Your task to perform on an android device: turn on showing notifications on the lock screen Image 0: 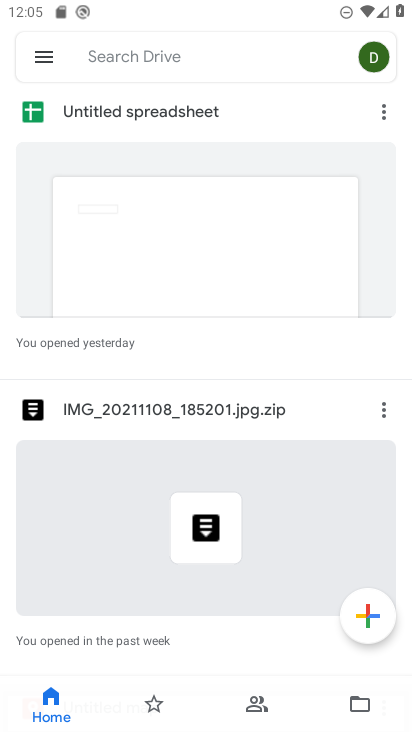
Step 0: press home button
Your task to perform on an android device: turn on showing notifications on the lock screen Image 1: 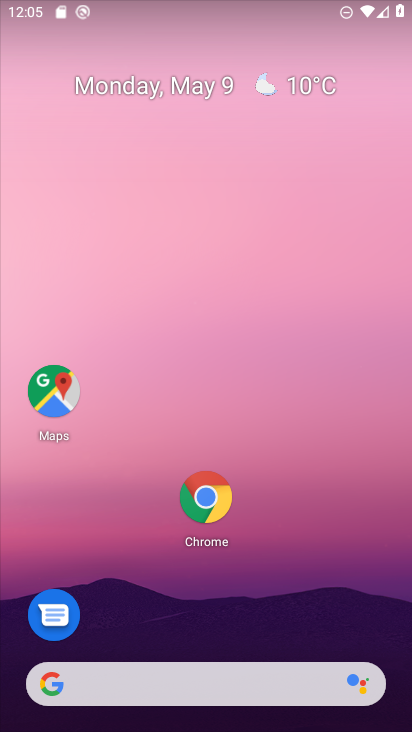
Step 1: drag from (374, 530) to (350, 0)
Your task to perform on an android device: turn on showing notifications on the lock screen Image 2: 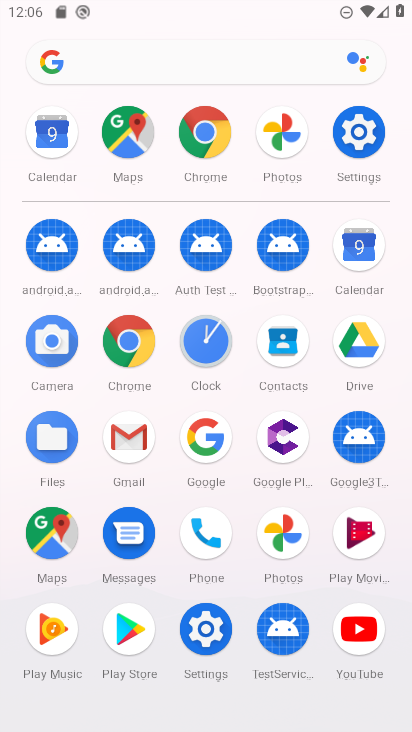
Step 2: click (365, 124)
Your task to perform on an android device: turn on showing notifications on the lock screen Image 3: 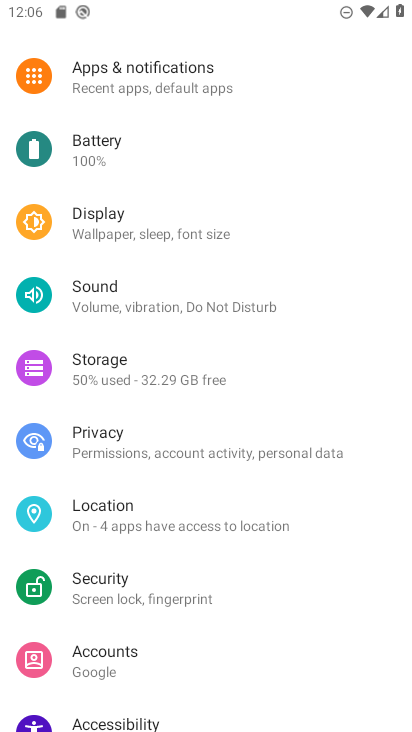
Step 3: click (151, 88)
Your task to perform on an android device: turn on showing notifications on the lock screen Image 4: 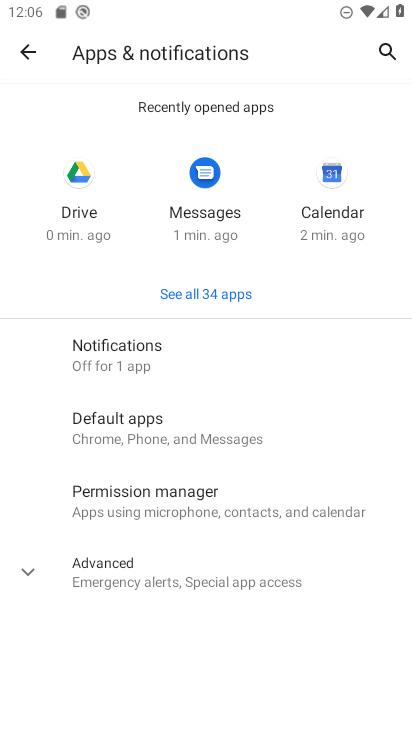
Step 4: click (165, 354)
Your task to perform on an android device: turn on showing notifications on the lock screen Image 5: 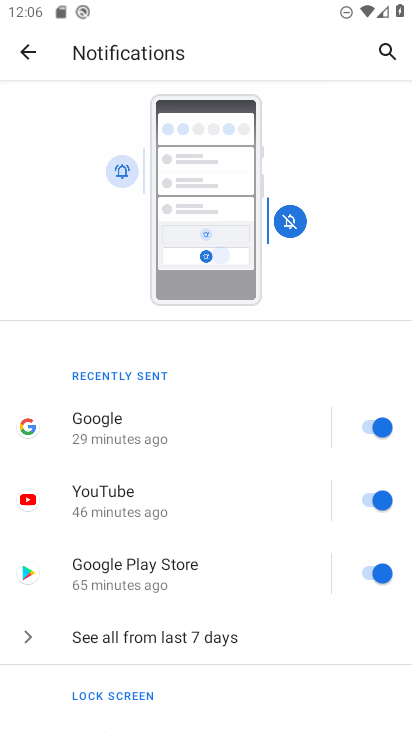
Step 5: drag from (209, 709) to (303, 191)
Your task to perform on an android device: turn on showing notifications on the lock screen Image 6: 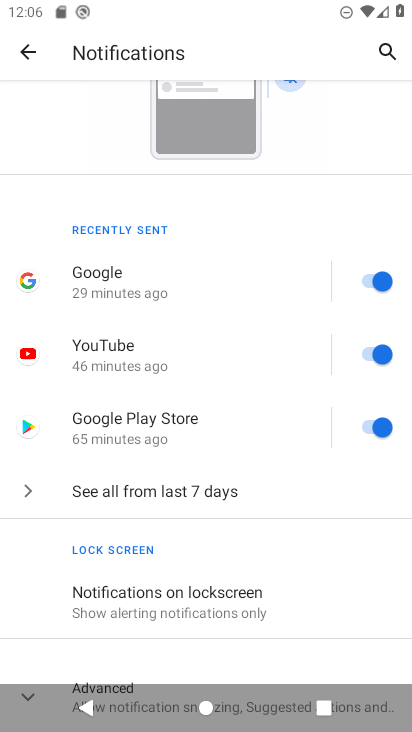
Step 6: click (190, 597)
Your task to perform on an android device: turn on showing notifications on the lock screen Image 7: 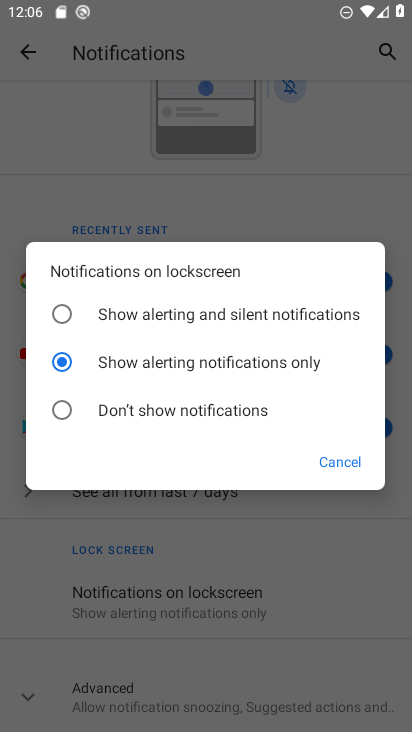
Step 7: task complete